Your task to perform on an android device: What's the news in the Philippines? Image 0: 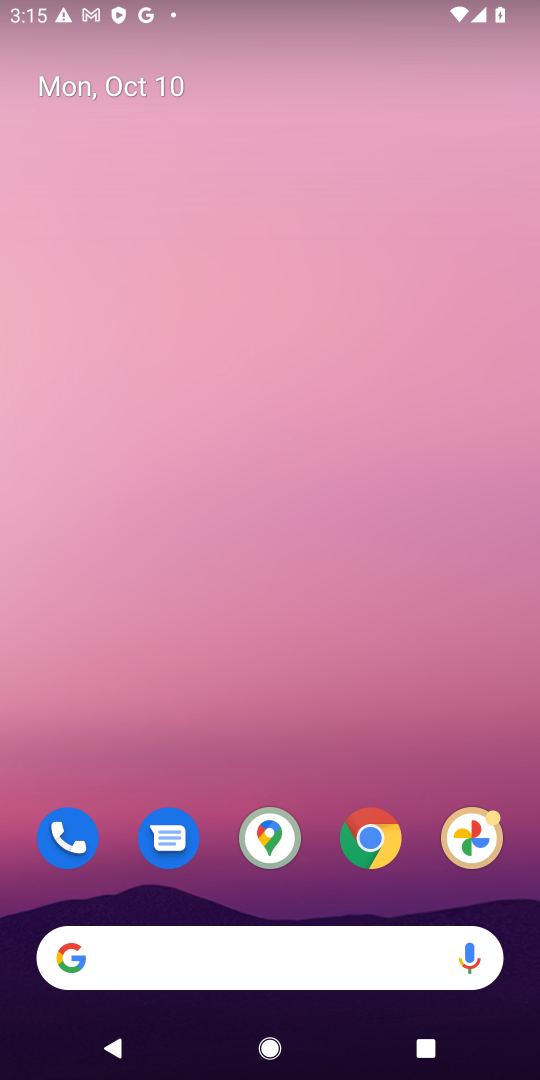
Step 0: click (380, 844)
Your task to perform on an android device: What's the news in the Philippines? Image 1: 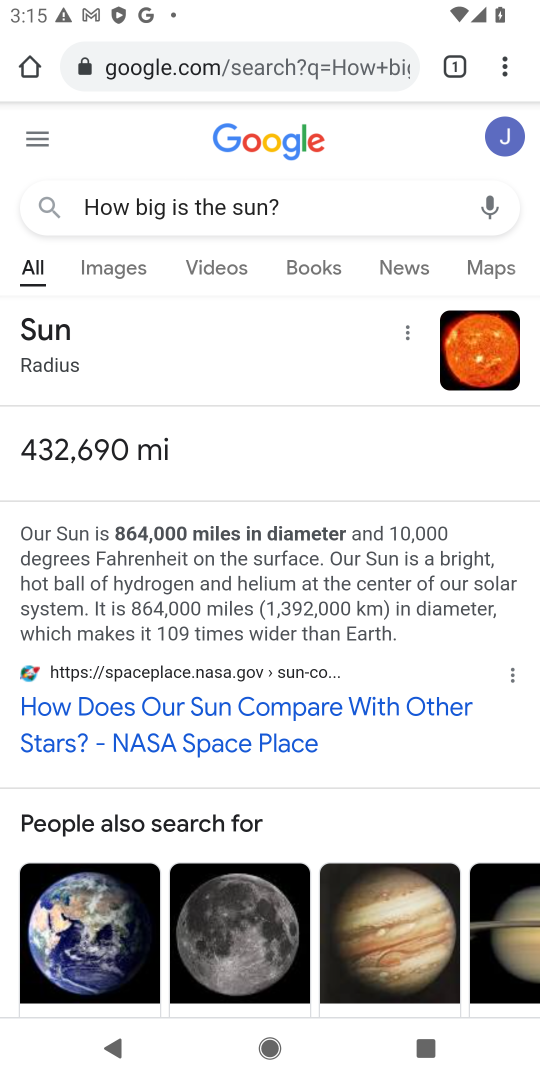
Step 1: click (209, 68)
Your task to perform on an android device: What's the news in the Philippines? Image 2: 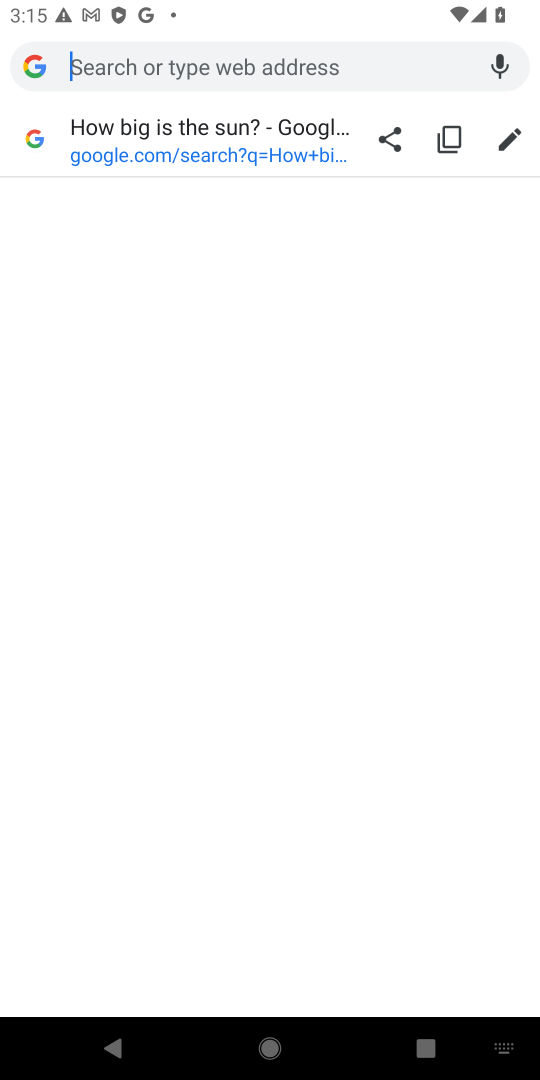
Step 2: click (437, 1072)
Your task to perform on an android device: What's the news in the Philippines? Image 3: 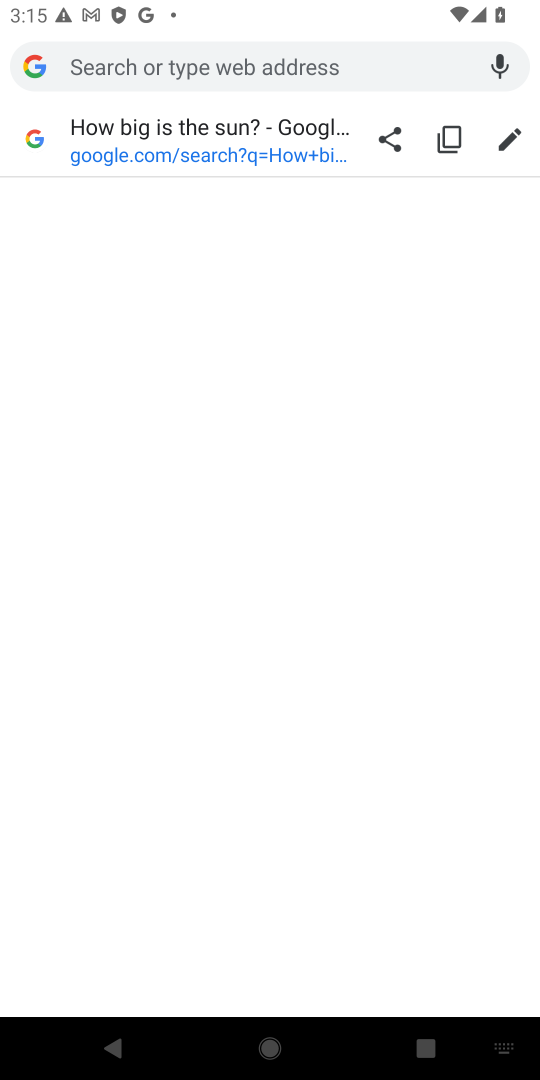
Step 3: type "What's the news in the Philippines?"
Your task to perform on an android device: What's the news in the Philippines? Image 4: 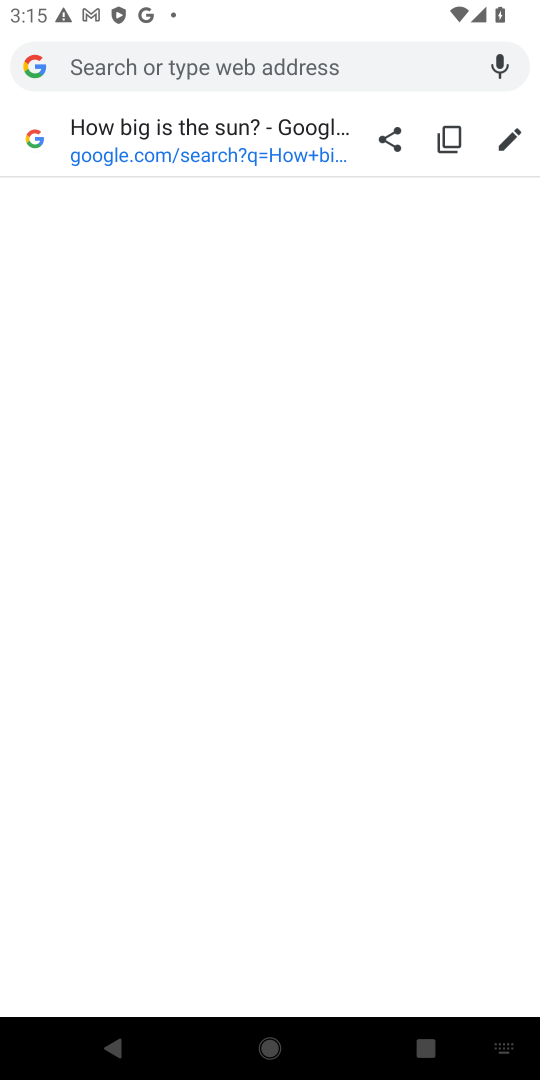
Step 4: click (387, 78)
Your task to perform on an android device: What's the news in the Philippines? Image 5: 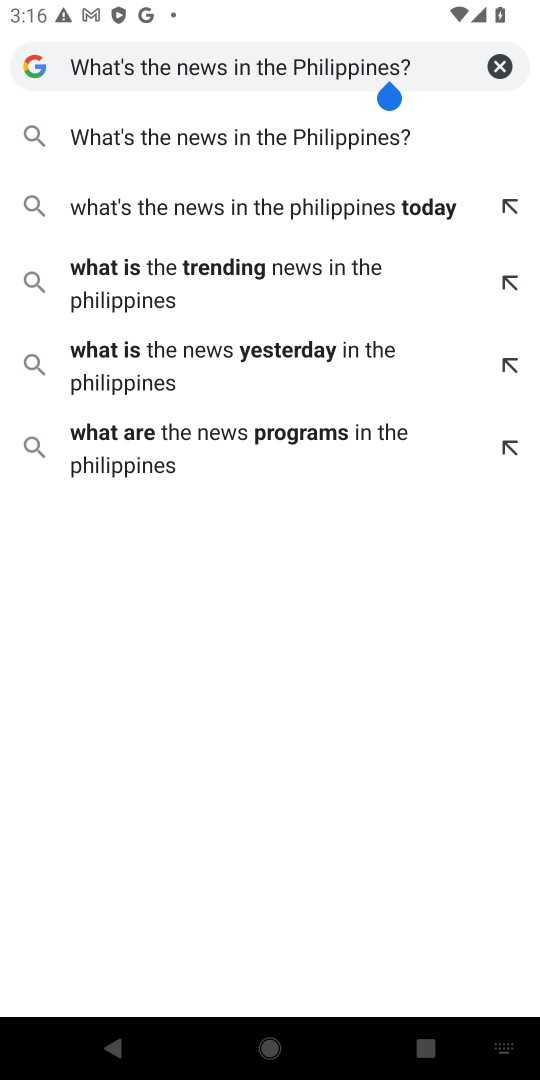
Step 5: click (379, 134)
Your task to perform on an android device: What's the news in the Philippines? Image 6: 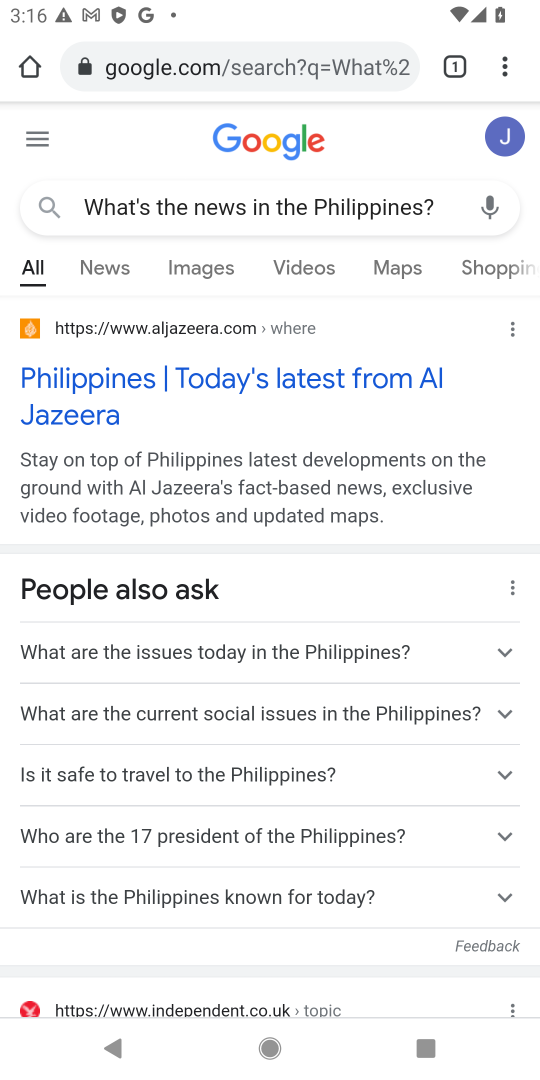
Step 6: click (305, 392)
Your task to perform on an android device: What's the news in the Philippines? Image 7: 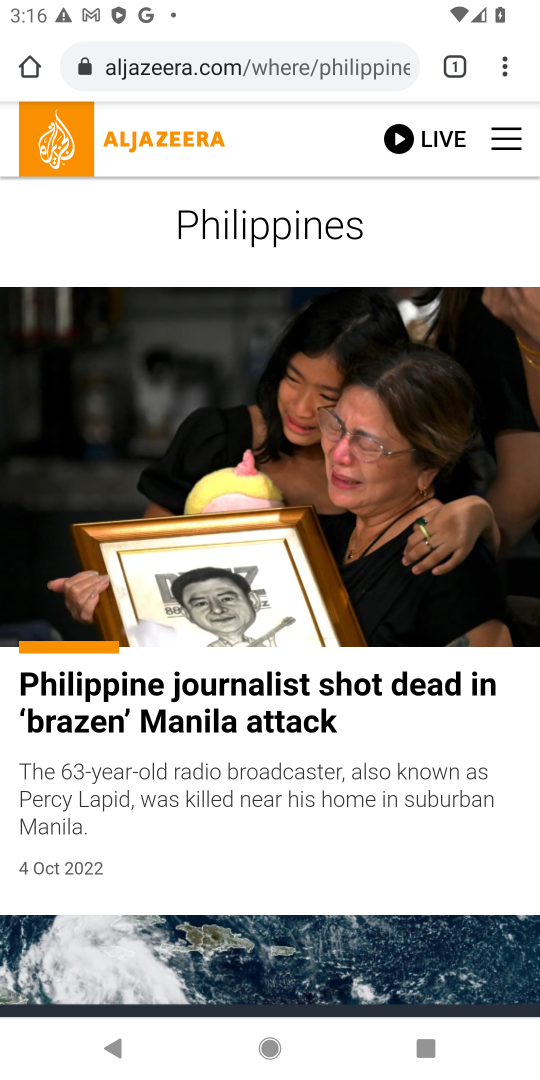
Step 7: click (305, 392)
Your task to perform on an android device: What's the news in the Philippines? Image 8: 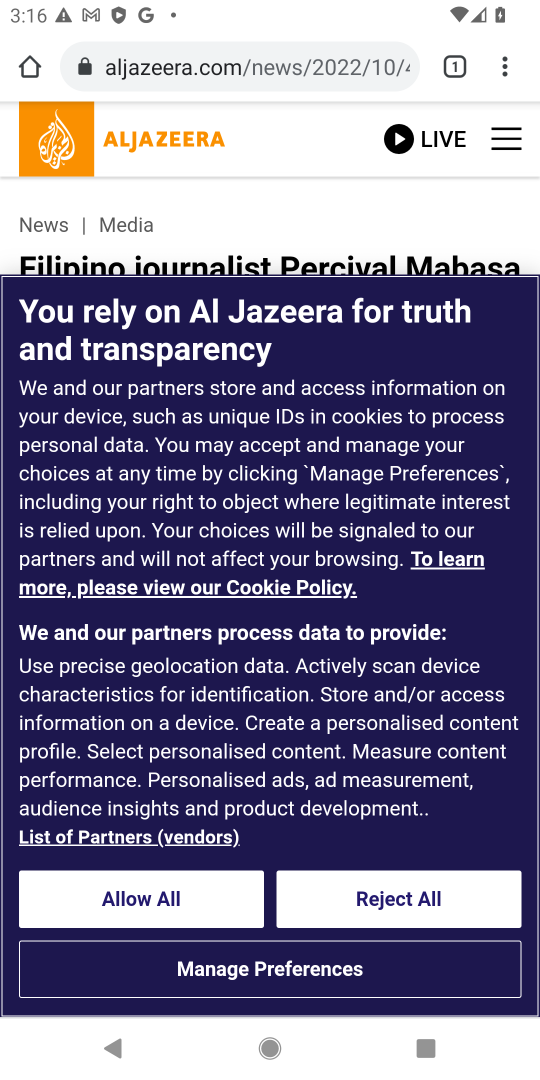
Step 8: click (163, 886)
Your task to perform on an android device: What's the news in the Philippines? Image 9: 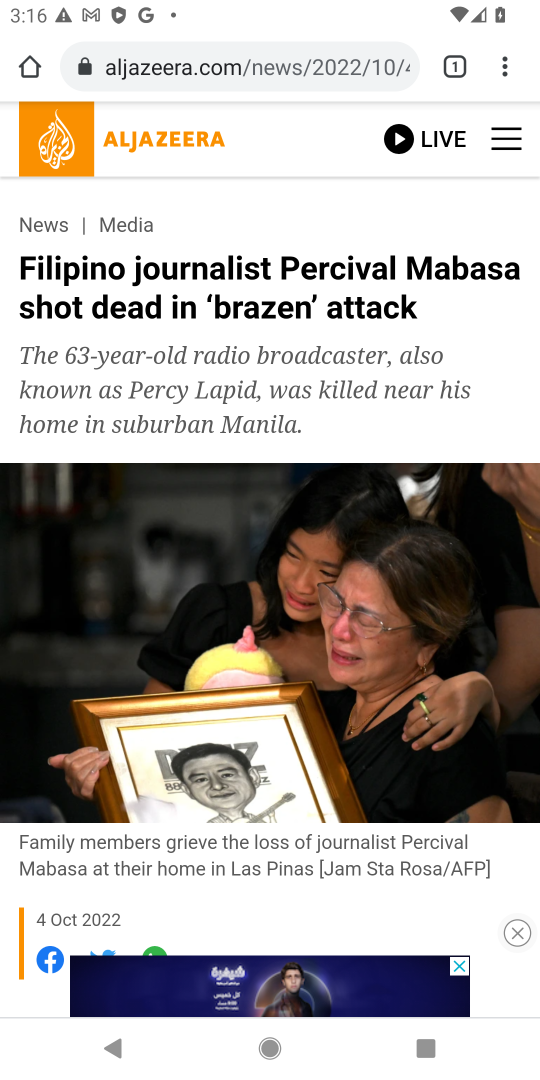
Step 9: task complete